Your task to perform on an android device: Go to accessibility settings Image 0: 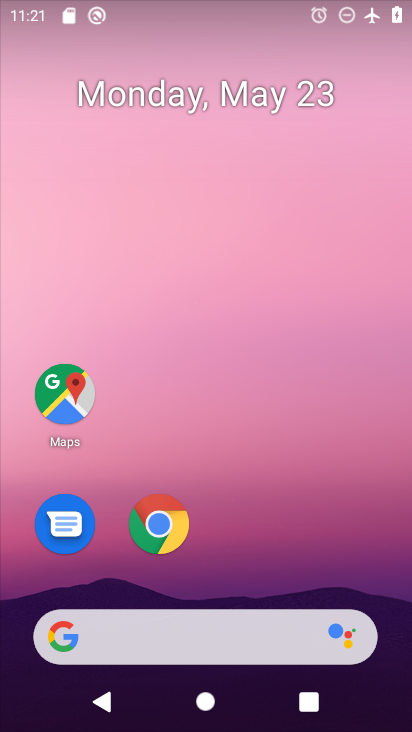
Step 0: drag from (235, 575) to (249, 200)
Your task to perform on an android device: Go to accessibility settings Image 1: 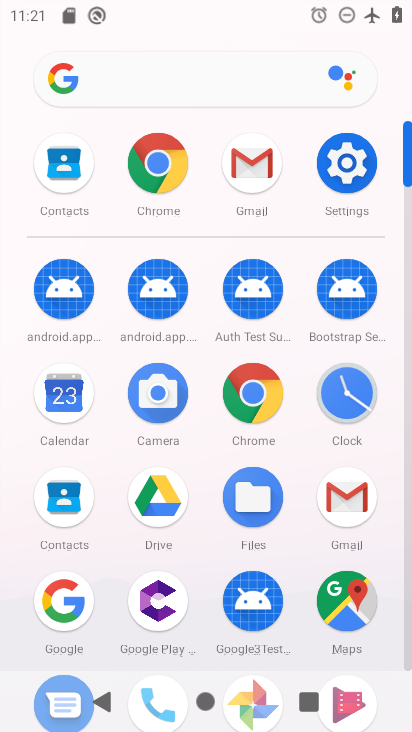
Step 1: click (333, 171)
Your task to perform on an android device: Go to accessibility settings Image 2: 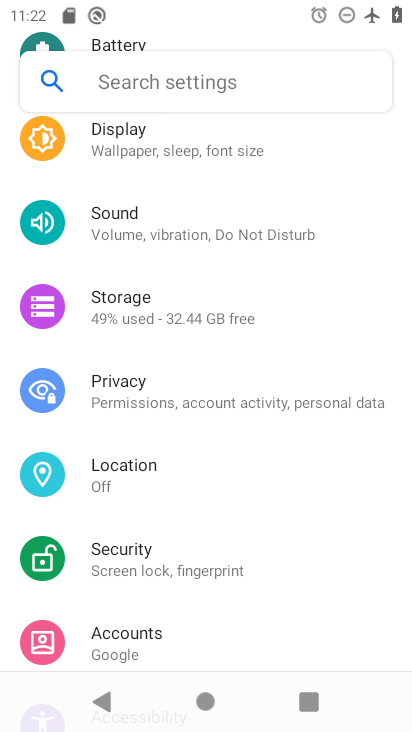
Step 2: drag from (187, 616) to (202, 245)
Your task to perform on an android device: Go to accessibility settings Image 3: 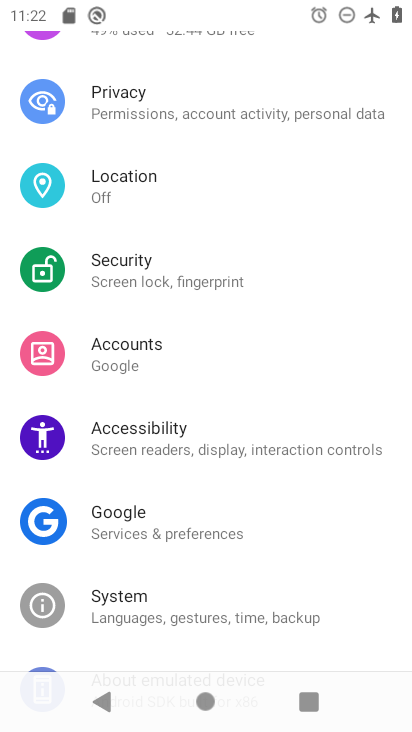
Step 3: click (207, 430)
Your task to perform on an android device: Go to accessibility settings Image 4: 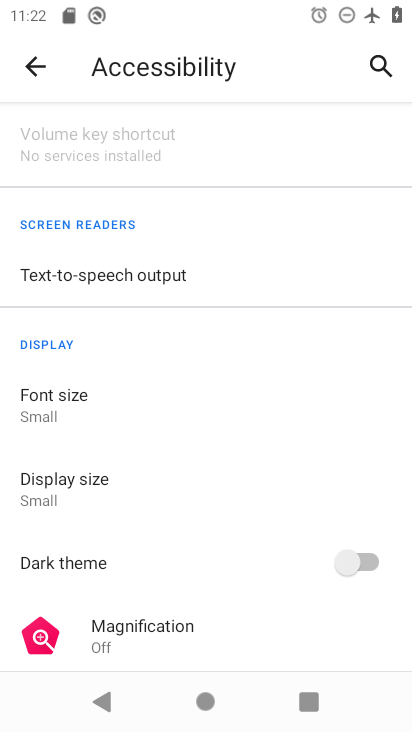
Step 4: task complete